Your task to perform on an android device: turn off notifications in google photos Image 0: 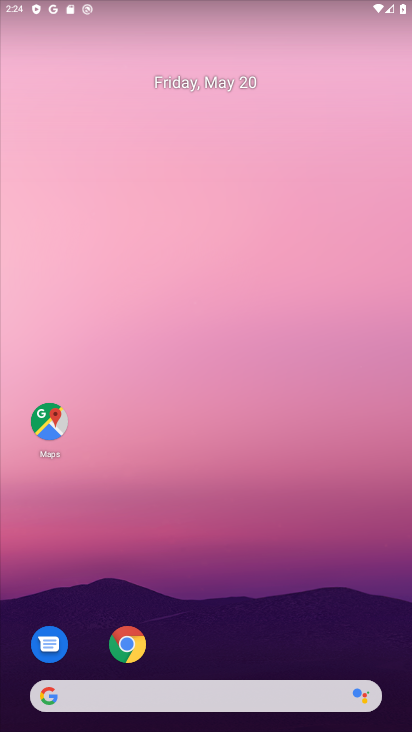
Step 0: drag from (318, 560) to (325, 159)
Your task to perform on an android device: turn off notifications in google photos Image 1: 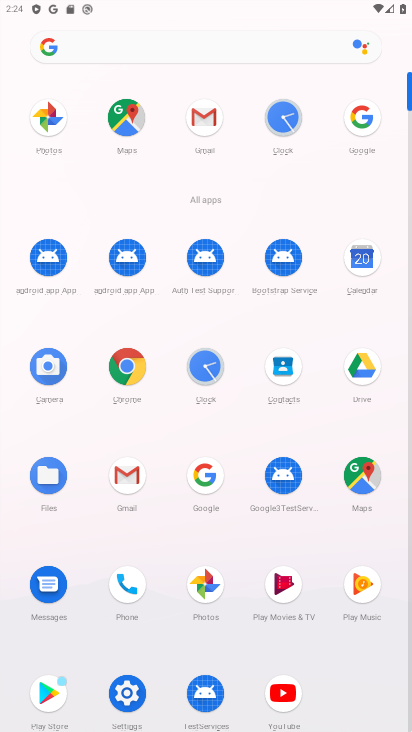
Step 1: click (62, 117)
Your task to perform on an android device: turn off notifications in google photos Image 2: 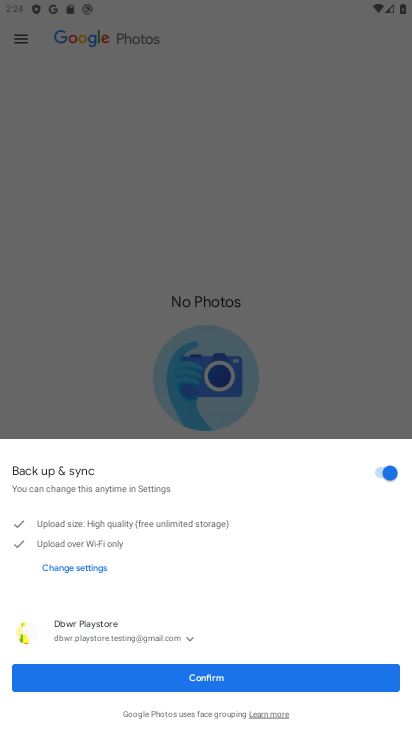
Step 2: click (183, 684)
Your task to perform on an android device: turn off notifications in google photos Image 3: 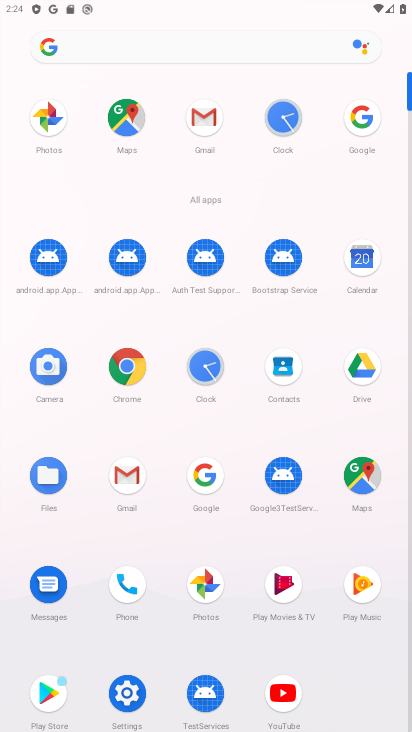
Step 3: click (53, 127)
Your task to perform on an android device: turn off notifications in google photos Image 4: 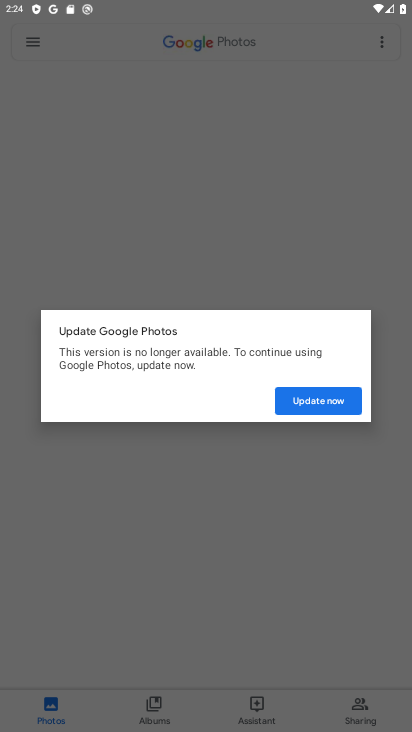
Step 4: click (317, 406)
Your task to perform on an android device: turn off notifications in google photos Image 5: 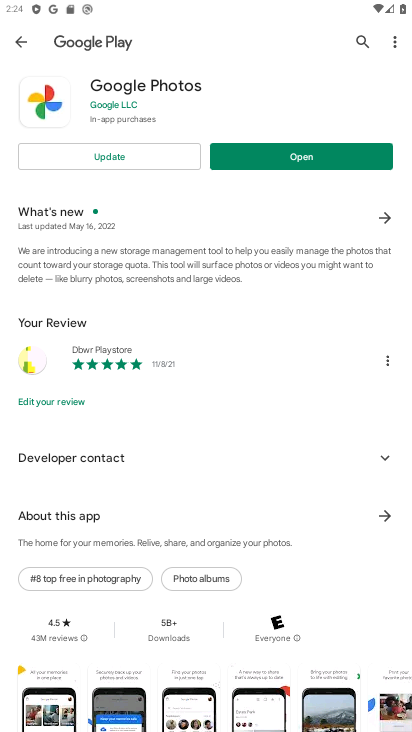
Step 5: click (359, 156)
Your task to perform on an android device: turn off notifications in google photos Image 6: 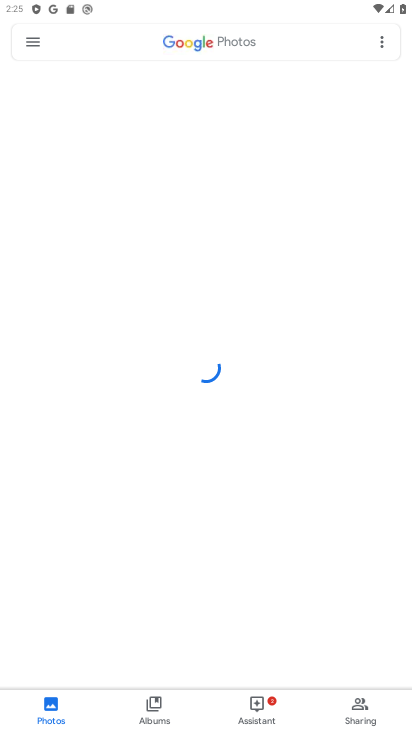
Step 6: click (23, 49)
Your task to perform on an android device: turn off notifications in google photos Image 7: 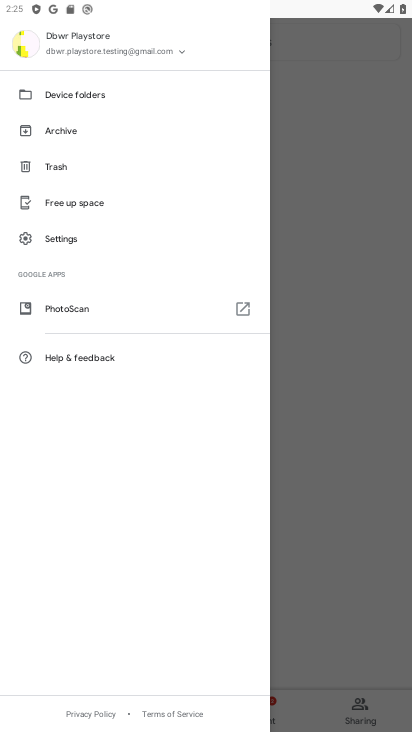
Step 7: click (64, 242)
Your task to perform on an android device: turn off notifications in google photos Image 8: 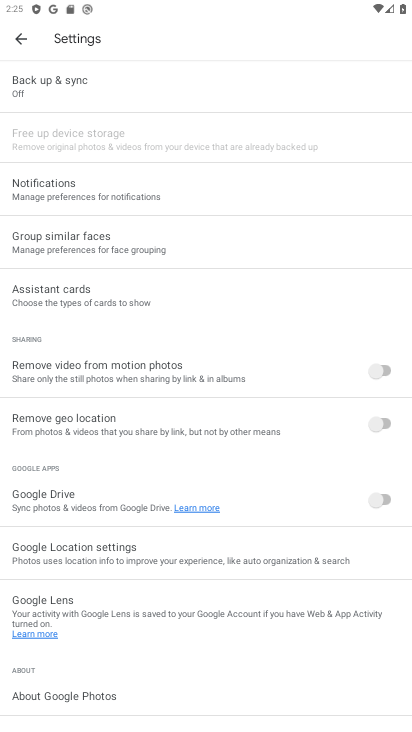
Step 8: click (90, 199)
Your task to perform on an android device: turn off notifications in google photos Image 9: 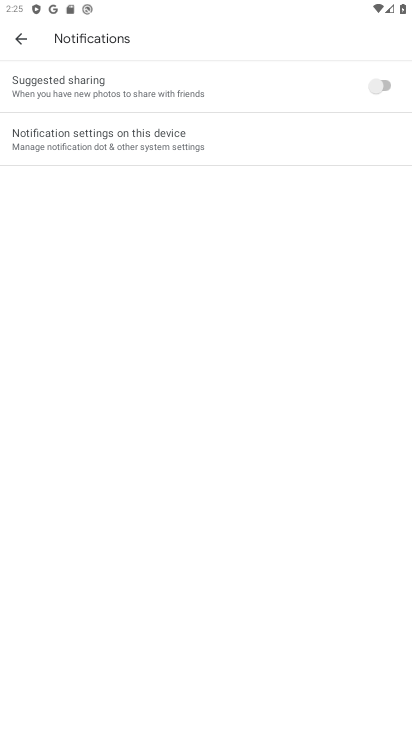
Step 9: click (256, 136)
Your task to perform on an android device: turn off notifications in google photos Image 10: 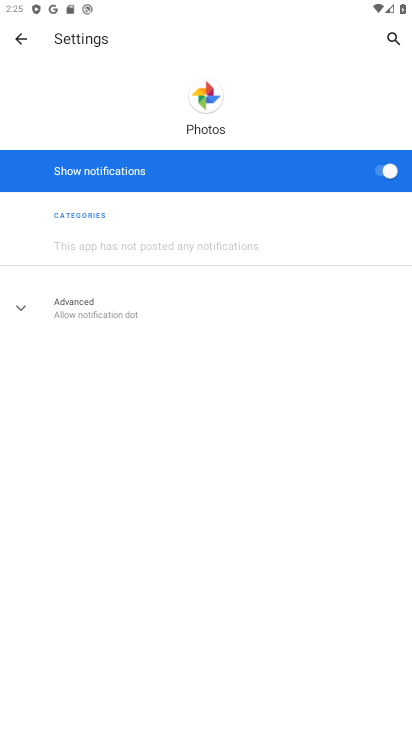
Step 10: click (382, 176)
Your task to perform on an android device: turn off notifications in google photos Image 11: 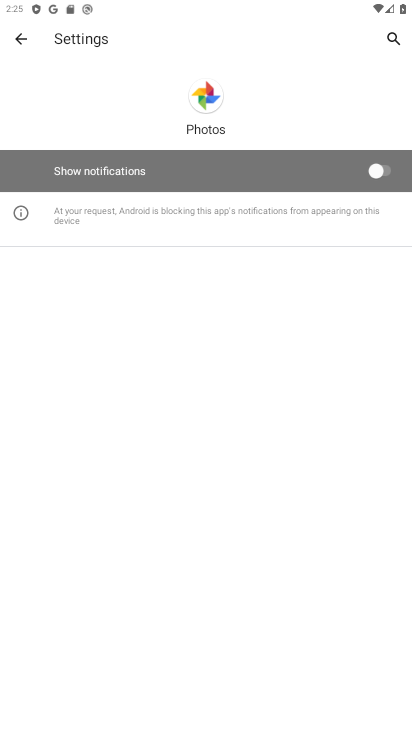
Step 11: task complete